Your task to perform on an android device: check out phone information Image 0: 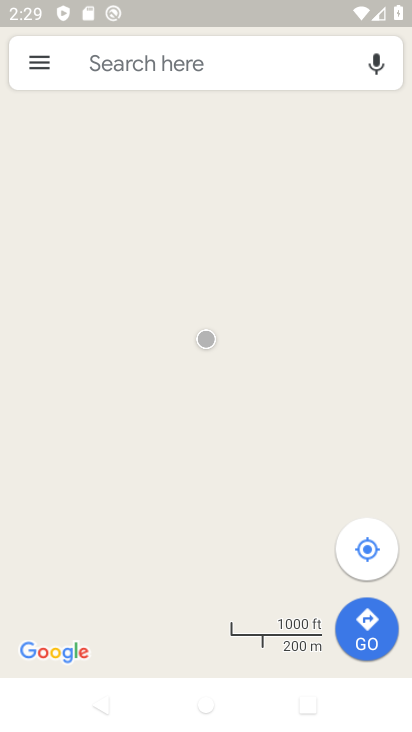
Step 0: press back button
Your task to perform on an android device: check out phone information Image 1: 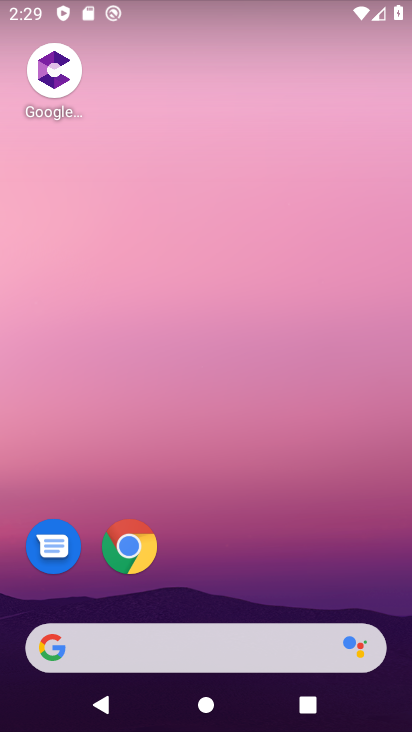
Step 1: drag from (194, 576) to (240, 108)
Your task to perform on an android device: check out phone information Image 2: 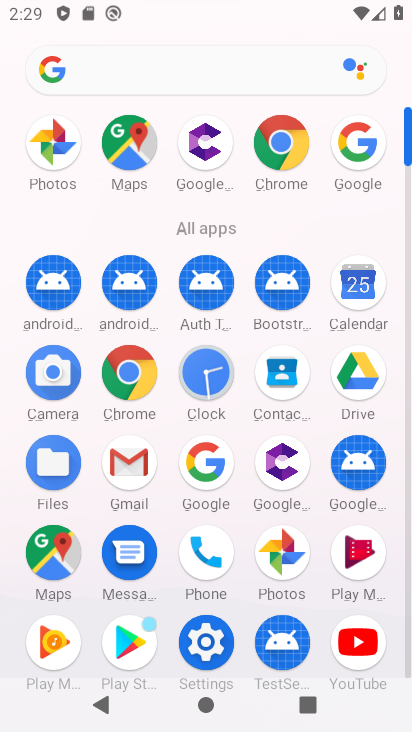
Step 2: click (220, 651)
Your task to perform on an android device: check out phone information Image 3: 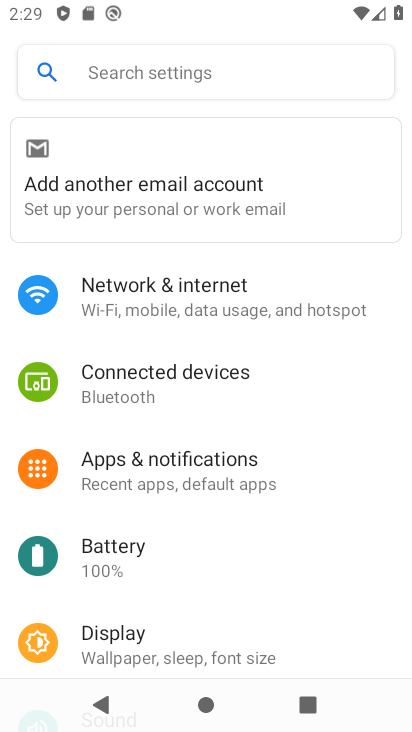
Step 3: drag from (177, 674) to (286, 94)
Your task to perform on an android device: check out phone information Image 4: 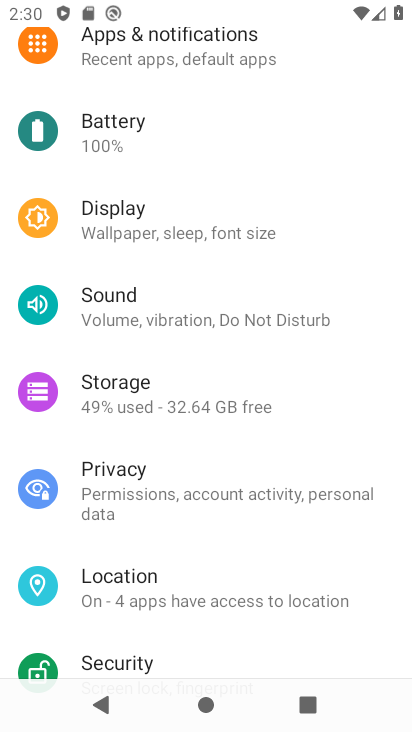
Step 4: drag from (237, 672) to (313, 155)
Your task to perform on an android device: check out phone information Image 5: 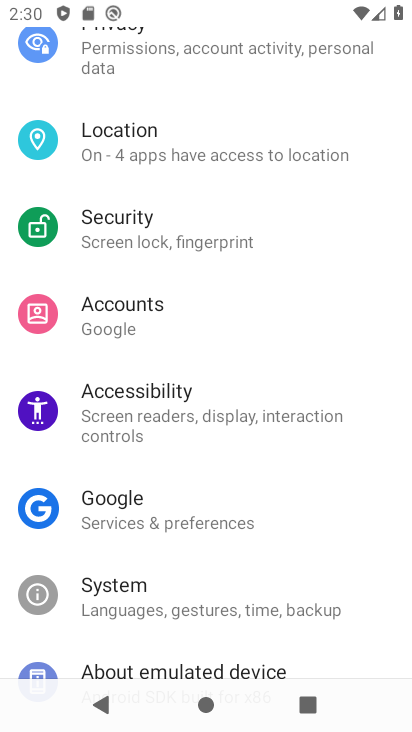
Step 5: drag from (198, 541) to (307, 146)
Your task to perform on an android device: check out phone information Image 6: 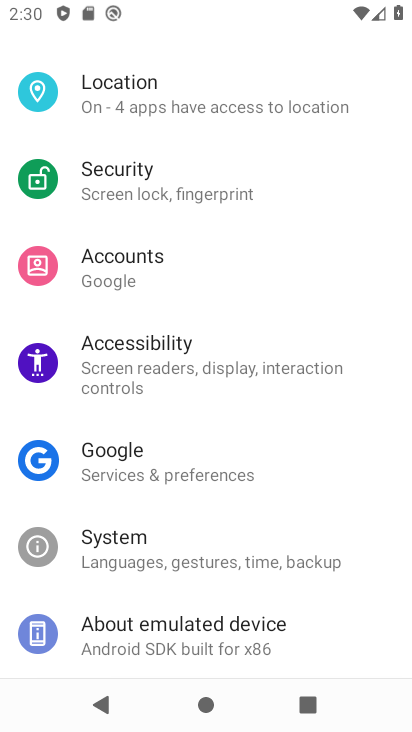
Step 6: click (211, 629)
Your task to perform on an android device: check out phone information Image 7: 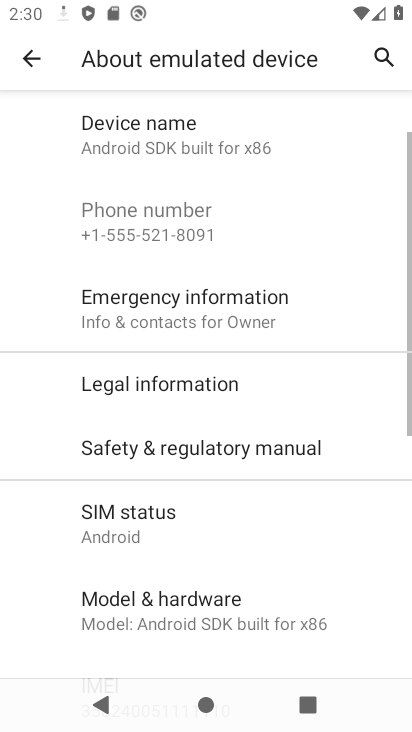
Step 7: task complete